Your task to perform on an android device: turn on location history Image 0: 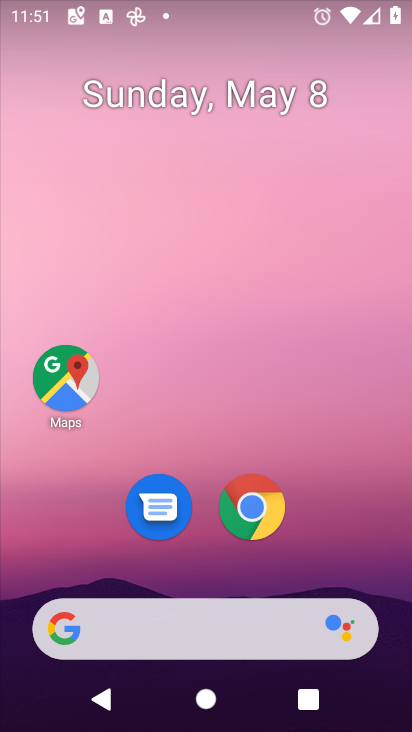
Step 0: click (68, 360)
Your task to perform on an android device: turn on location history Image 1: 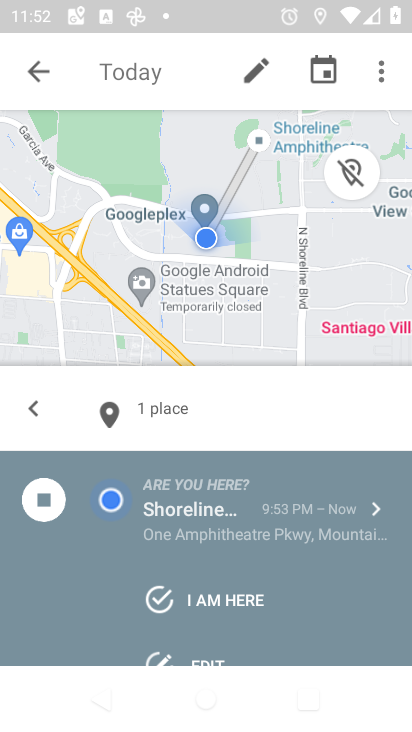
Step 1: click (52, 77)
Your task to perform on an android device: turn on location history Image 2: 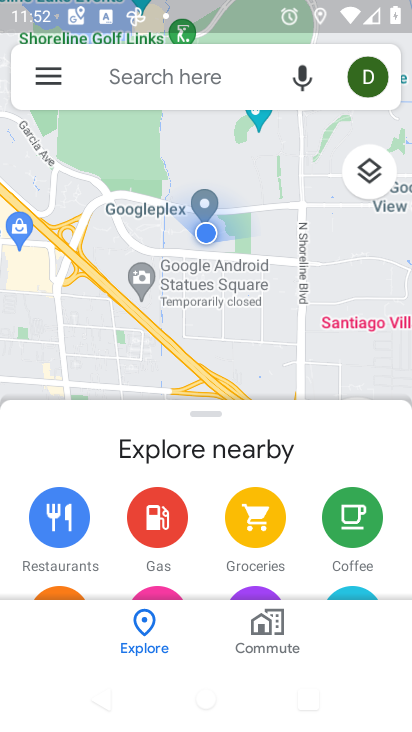
Step 2: click (52, 77)
Your task to perform on an android device: turn on location history Image 3: 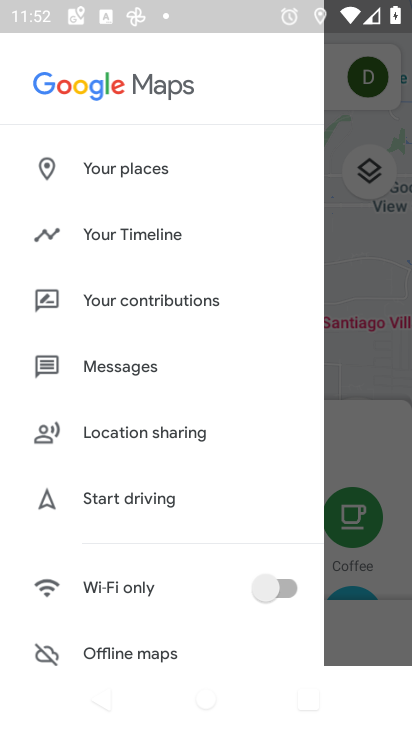
Step 3: drag from (178, 499) to (178, 119)
Your task to perform on an android device: turn on location history Image 4: 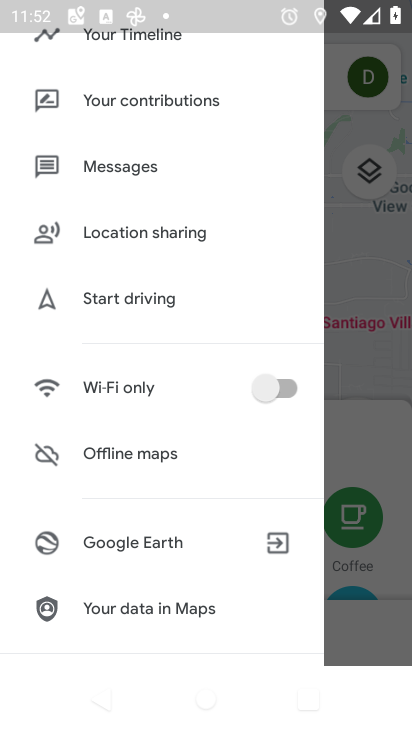
Step 4: drag from (133, 487) to (142, 110)
Your task to perform on an android device: turn on location history Image 5: 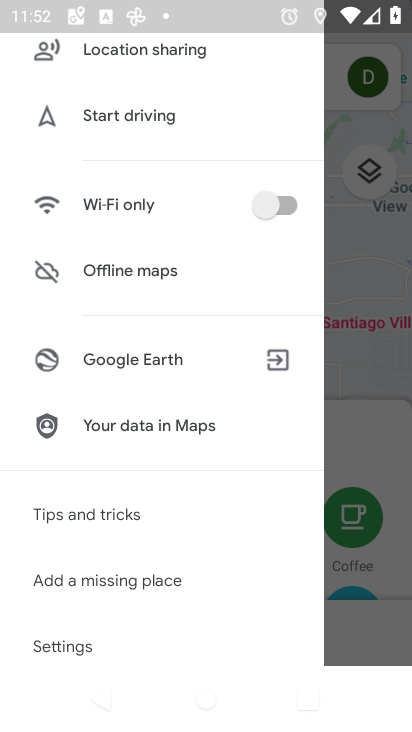
Step 5: click (78, 640)
Your task to perform on an android device: turn on location history Image 6: 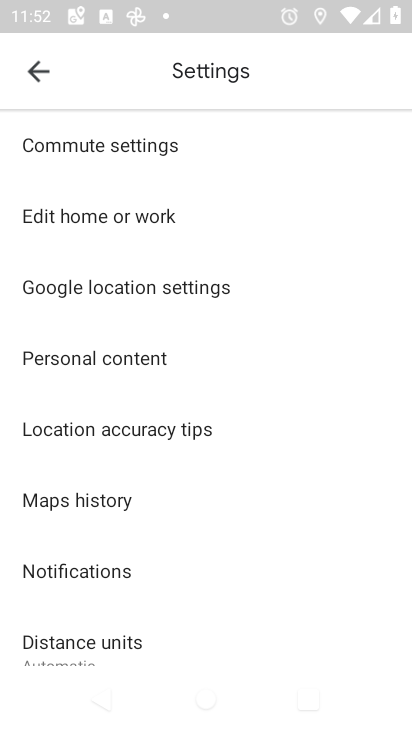
Step 6: click (165, 283)
Your task to perform on an android device: turn on location history Image 7: 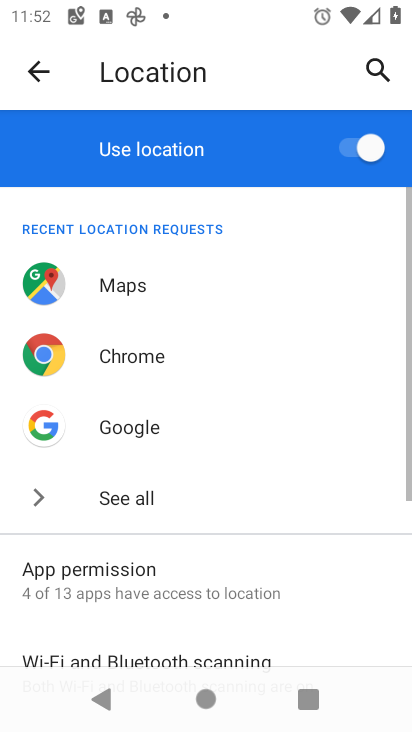
Step 7: drag from (253, 523) to (281, 49)
Your task to perform on an android device: turn on location history Image 8: 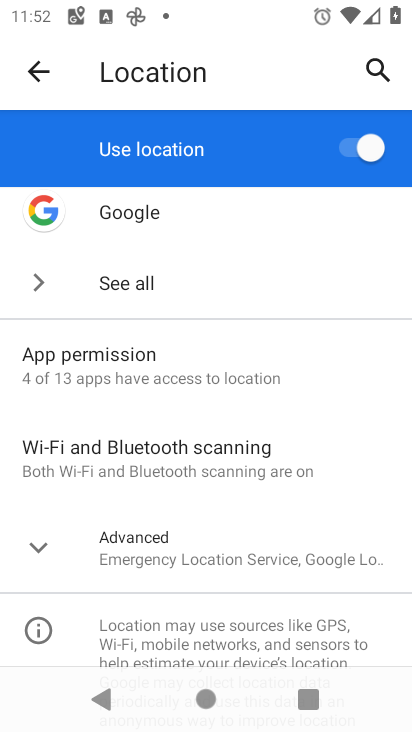
Step 8: click (275, 562)
Your task to perform on an android device: turn on location history Image 9: 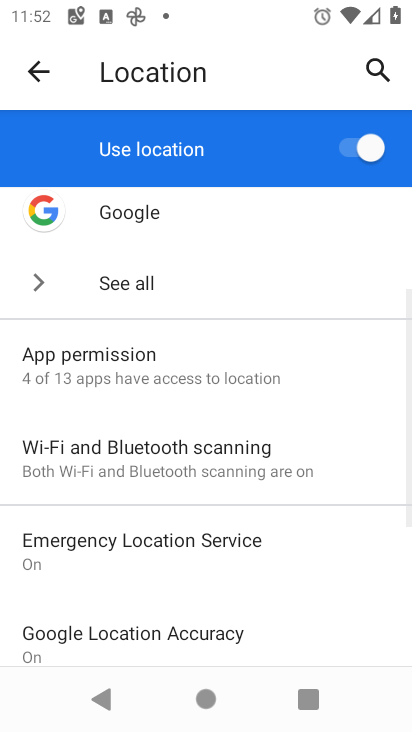
Step 9: drag from (271, 589) to (213, 18)
Your task to perform on an android device: turn on location history Image 10: 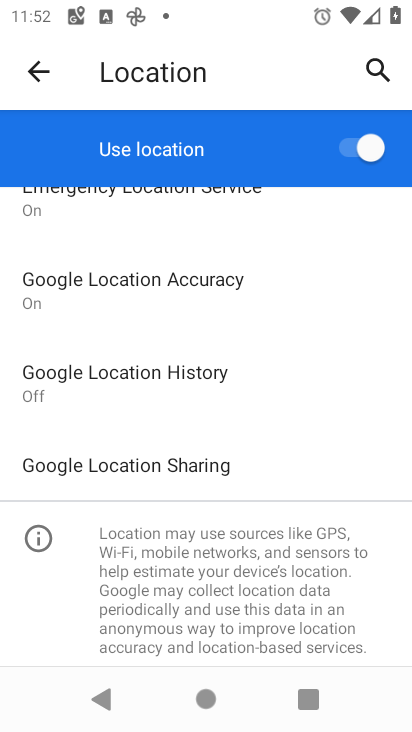
Step 10: click (192, 387)
Your task to perform on an android device: turn on location history Image 11: 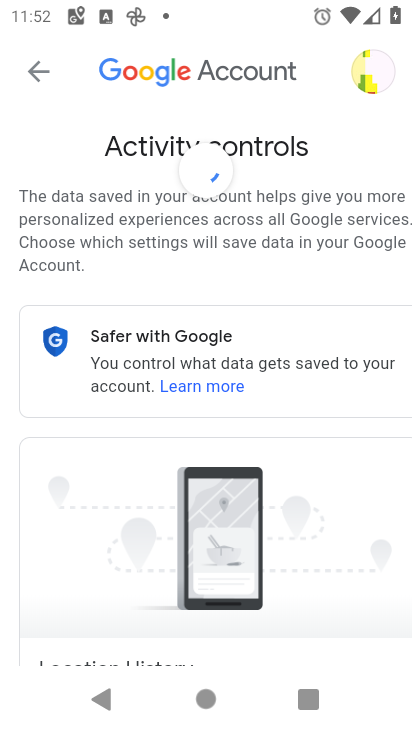
Step 11: drag from (302, 623) to (297, 34)
Your task to perform on an android device: turn on location history Image 12: 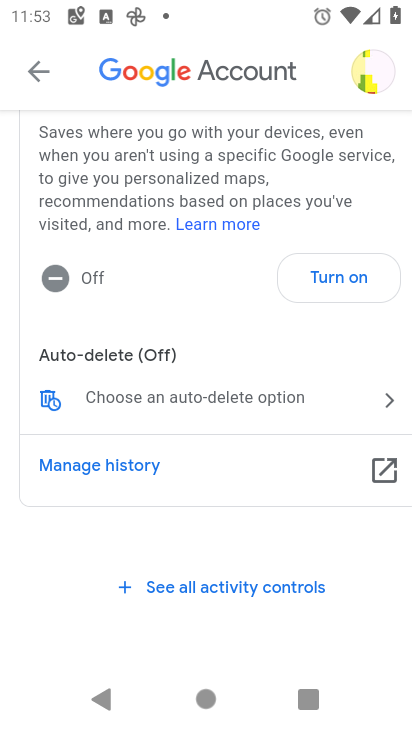
Step 12: click (352, 283)
Your task to perform on an android device: turn on location history Image 13: 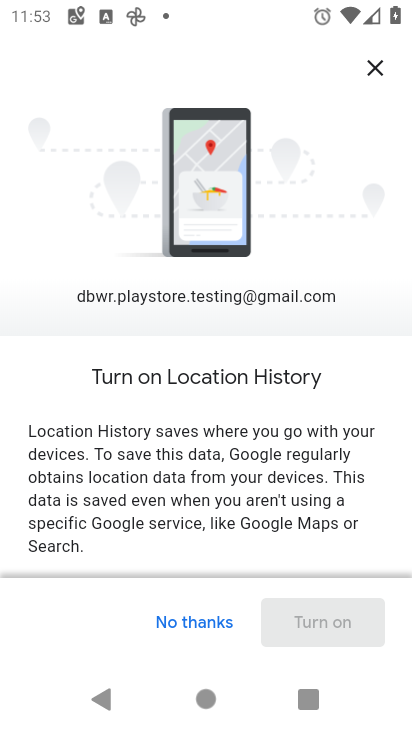
Step 13: drag from (251, 462) to (283, 30)
Your task to perform on an android device: turn on location history Image 14: 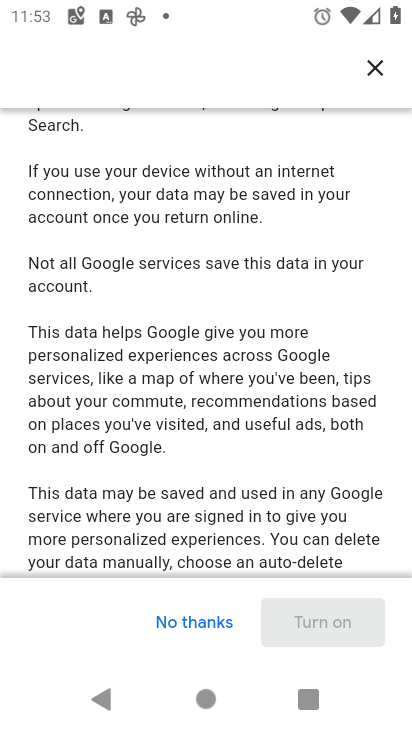
Step 14: drag from (290, 464) to (311, 12)
Your task to perform on an android device: turn on location history Image 15: 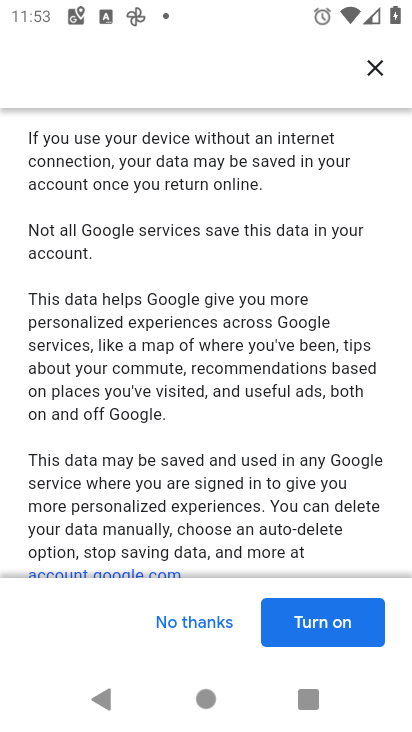
Step 15: drag from (246, 468) to (189, 7)
Your task to perform on an android device: turn on location history Image 16: 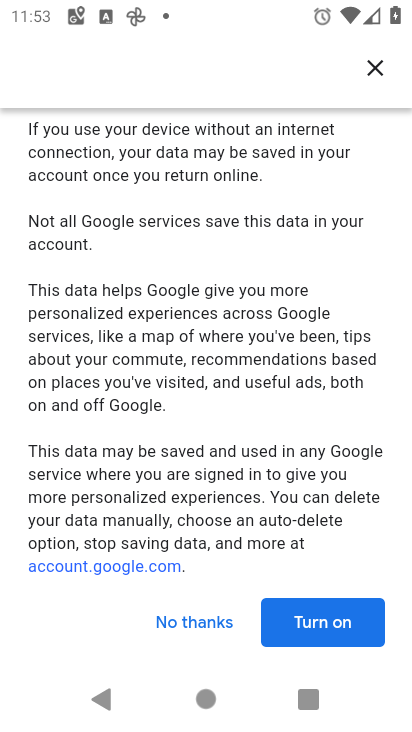
Step 16: click (357, 631)
Your task to perform on an android device: turn on location history Image 17: 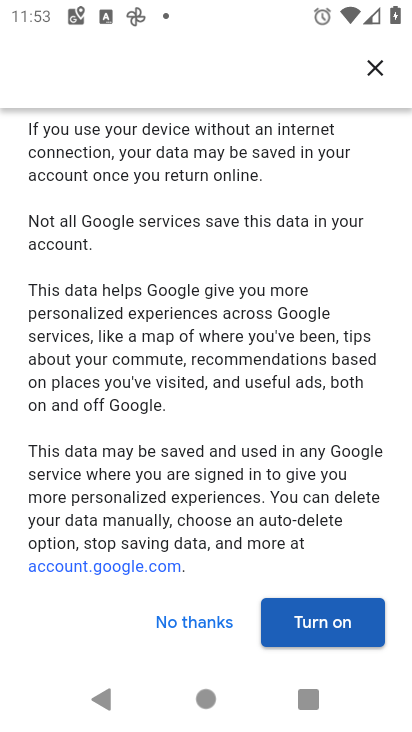
Step 17: click (357, 631)
Your task to perform on an android device: turn on location history Image 18: 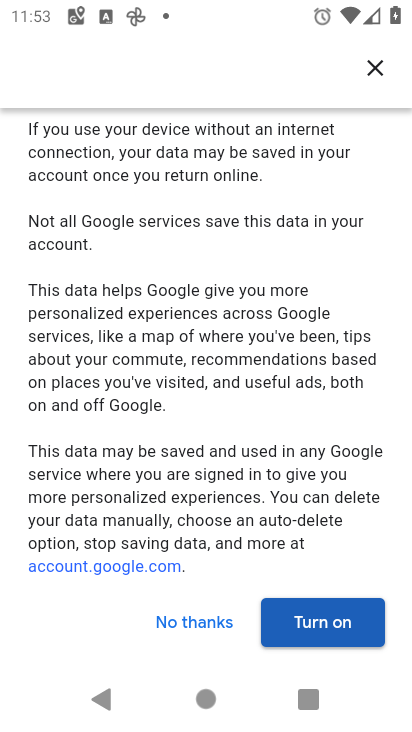
Step 18: click (357, 631)
Your task to perform on an android device: turn on location history Image 19: 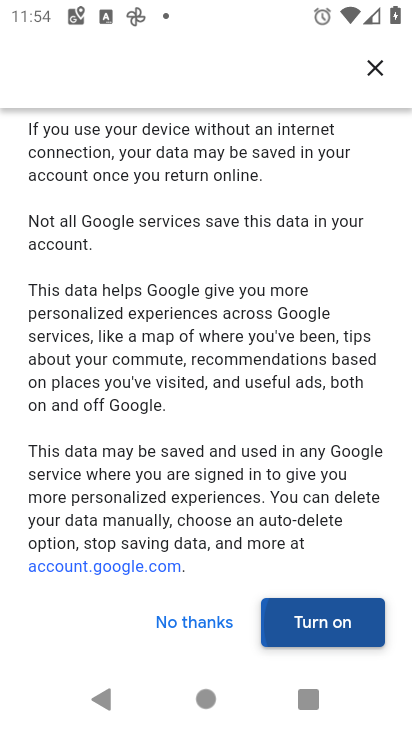
Step 19: click (349, 622)
Your task to perform on an android device: turn on location history Image 20: 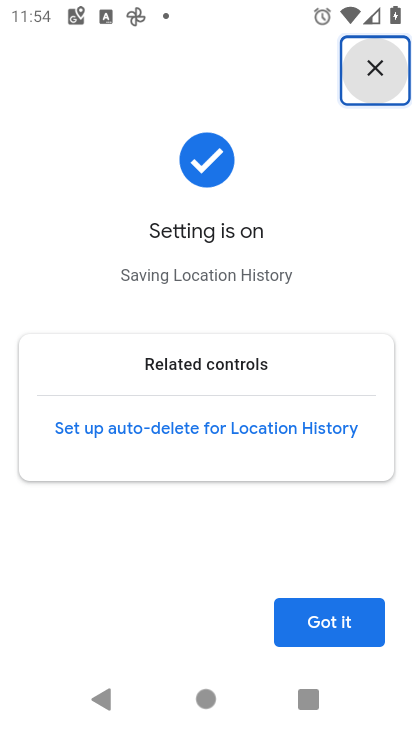
Step 20: click (350, 634)
Your task to perform on an android device: turn on location history Image 21: 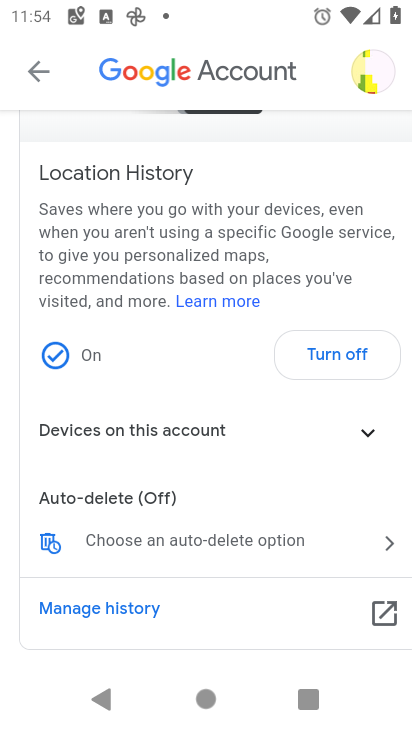
Step 21: task complete